Your task to perform on an android device: What is the recent news? Image 0: 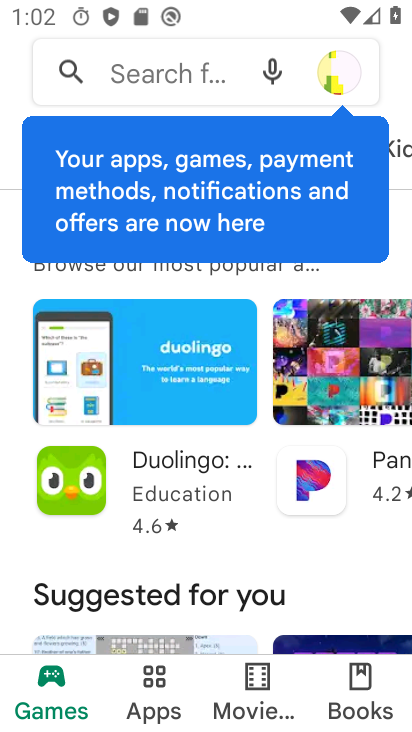
Step 0: press home button
Your task to perform on an android device: What is the recent news? Image 1: 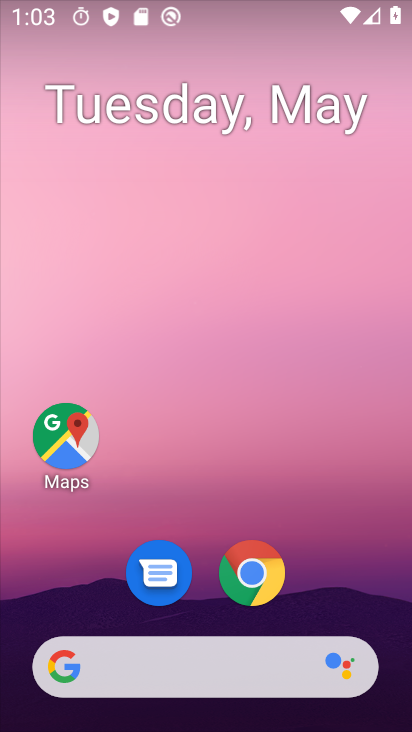
Step 1: click (261, 567)
Your task to perform on an android device: What is the recent news? Image 2: 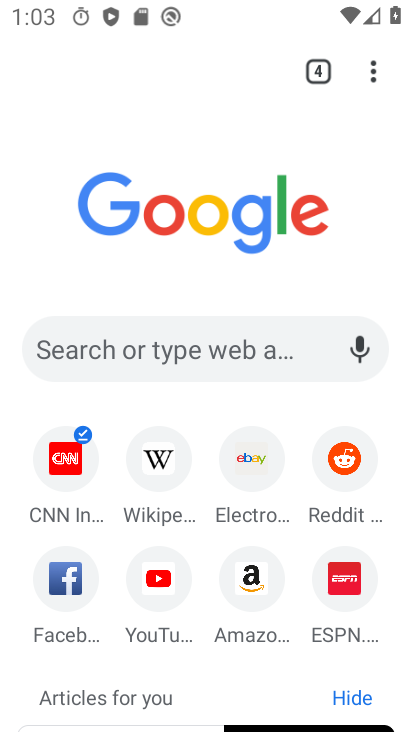
Step 2: task complete